Your task to perform on an android device: open chrome privacy settings Image 0: 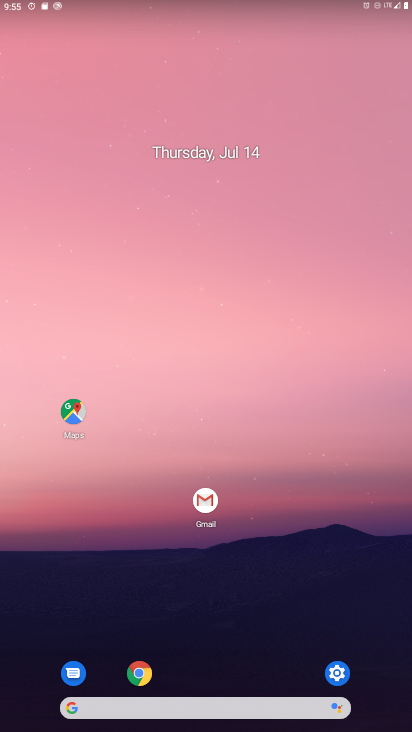
Step 0: click (142, 680)
Your task to perform on an android device: open chrome privacy settings Image 1: 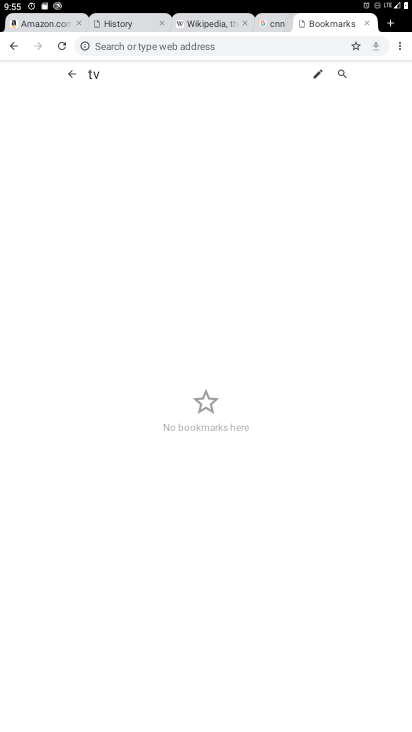
Step 1: click (397, 46)
Your task to perform on an android device: open chrome privacy settings Image 2: 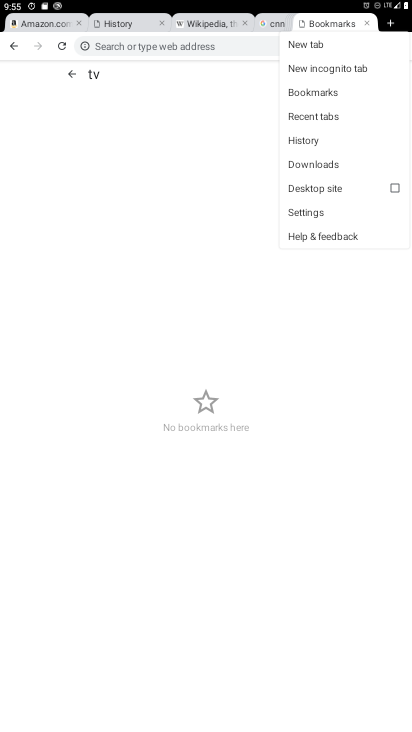
Step 2: click (307, 215)
Your task to perform on an android device: open chrome privacy settings Image 3: 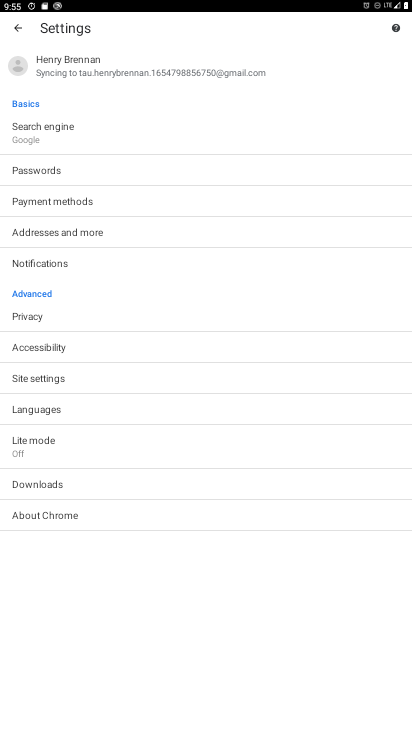
Step 3: click (25, 316)
Your task to perform on an android device: open chrome privacy settings Image 4: 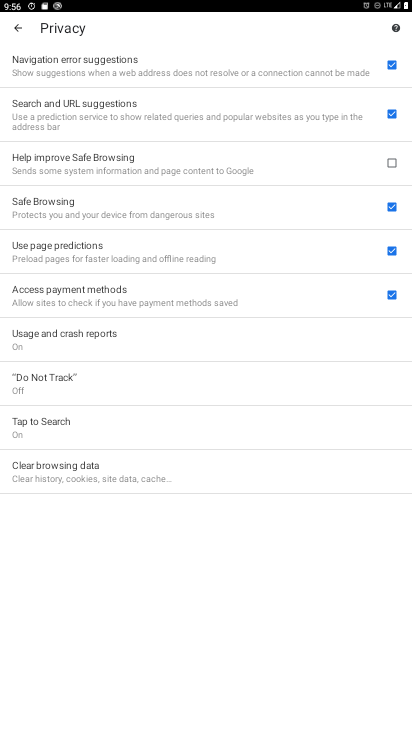
Step 4: task complete